Your task to perform on an android device: turn on airplane mode Image 0: 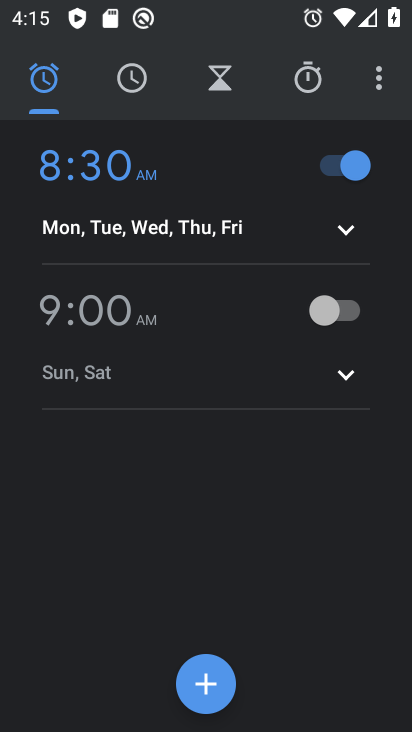
Step 0: press home button
Your task to perform on an android device: turn on airplane mode Image 1: 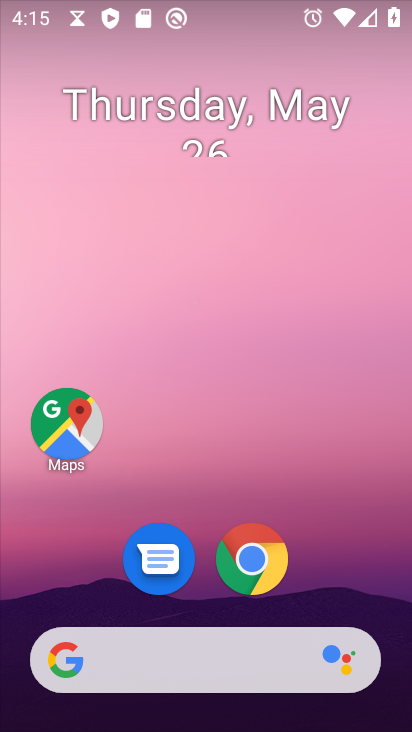
Step 1: drag from (320, 449) to (186, 6)
Your task to perform on an android device: turn on airplane mode Image 2: 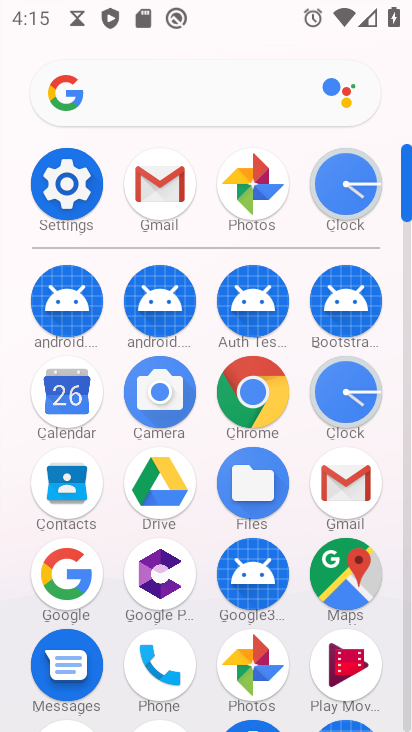
Step 2: click (61, 187)
Your task to perform on an android device: turn on airplane mode Image 3: 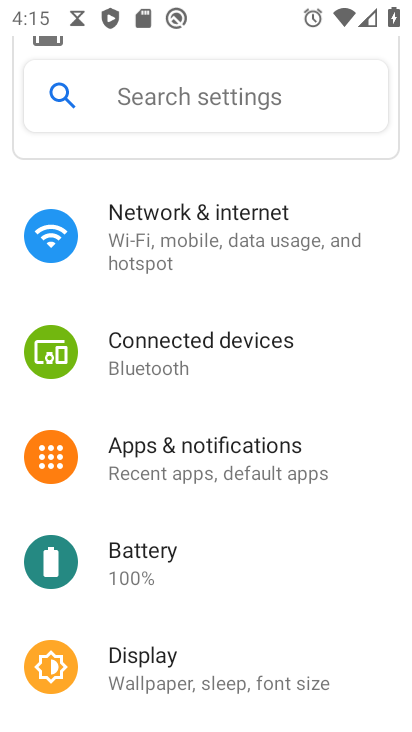
Step 3: click (236, 220)
Your task to perform on an android device: turn on airplane mode Image 4: 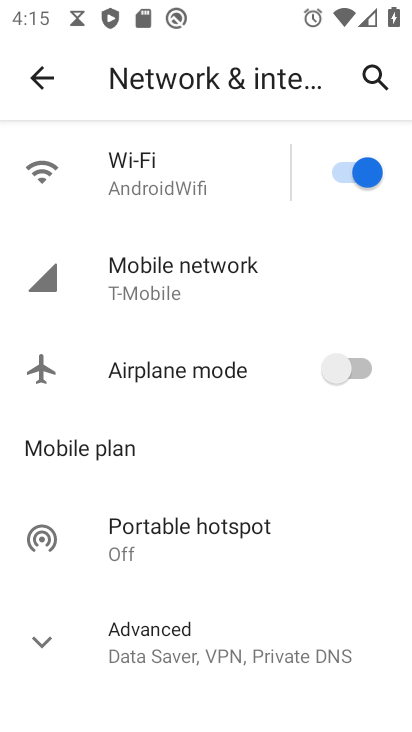
Step 4: click (351, 359)
Your task to perform on an android device: turn on airplane mode Image 5: 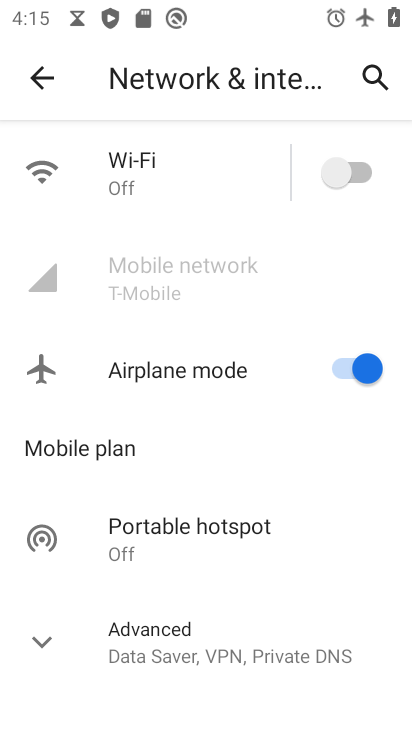
Step 5: task complete